Your task to perform on an android device: Open calendar and show me the fourth week of next month Image 0: 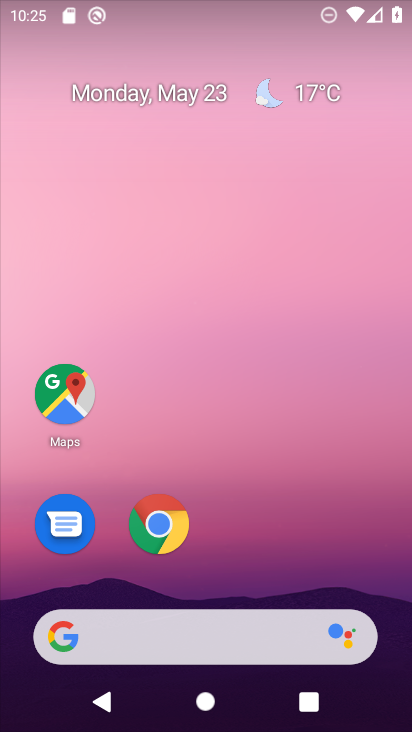
Step 0: drag from (211, 575) to (218, 185)
Your task to perform on an android device: Open calendar and show me the fourth week of next month Image 1: 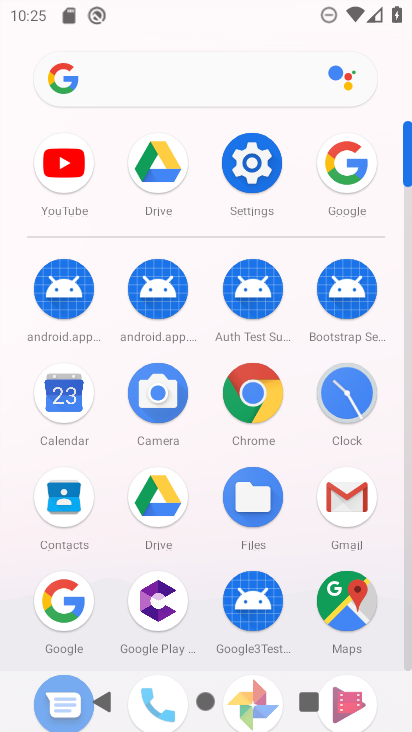
Step 1: click (49, 383)
Your task to perform on an android device: Open calendar and show me the fourth week of next month Image 2: 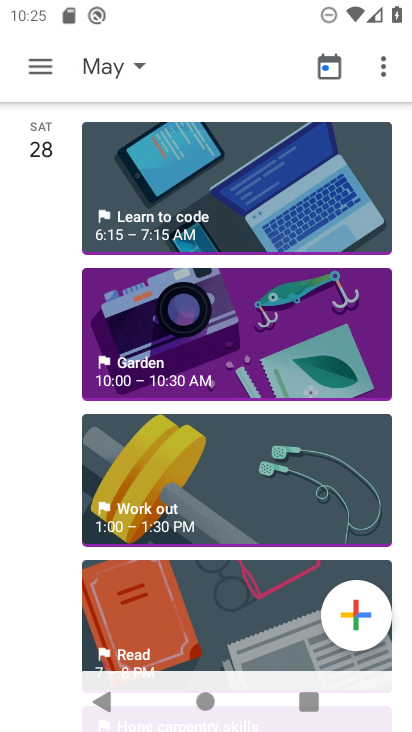
Step 2: click (135, 71)
Your task to perform on an android device: Open calendar and show me the fourth week of next month Image 3: 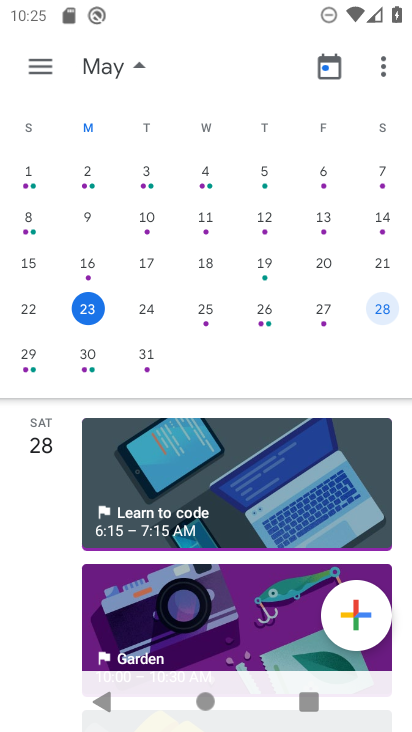
Step 3: drag from (349, 251) to (13, 218)
Your task to perform on an android device: Open calendar and show me the fourth week of next month Image 4: 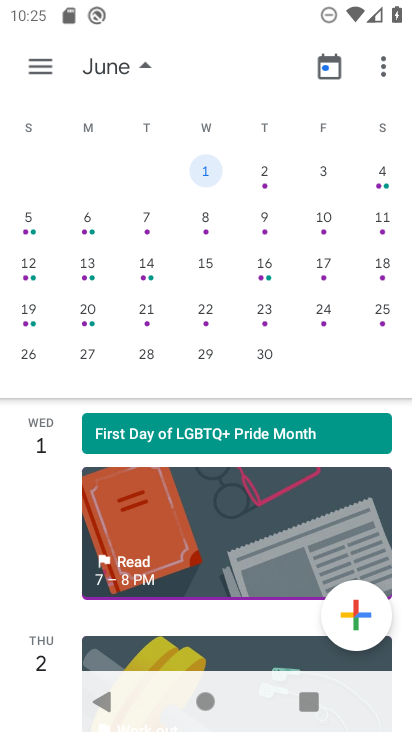
Step 4: click (25, 296)
Your task to perform on an android device: Open calendar and show me the fourth week of next month Image 5: 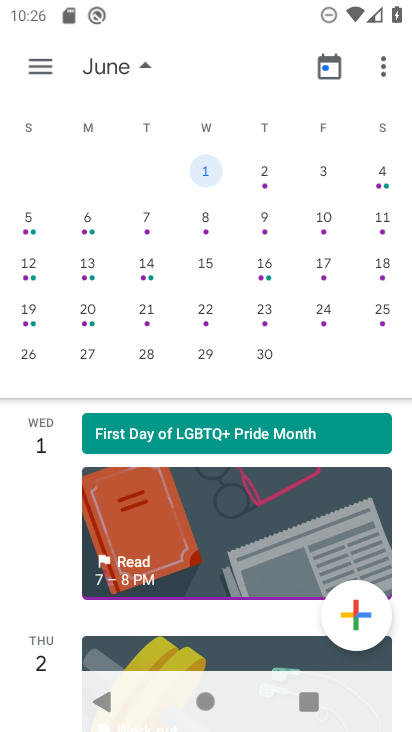
Step 5: click (28, 308)
Your task to perform on an android device: Open calendar and show me the fourth week of next month Image 6: 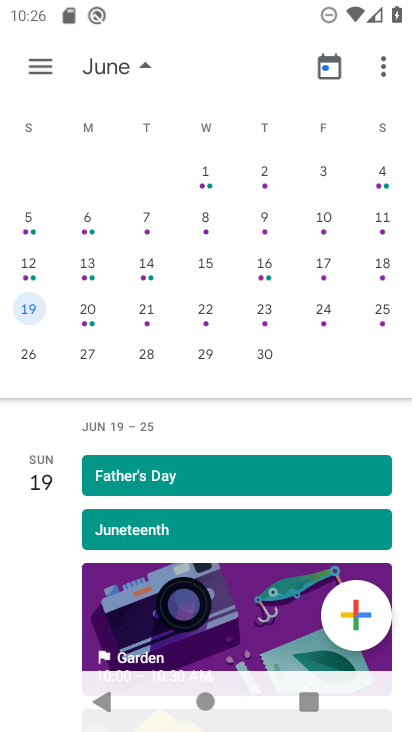
Step 6: task complete